Your task to perform on an android device: Go to eBay Image 0: 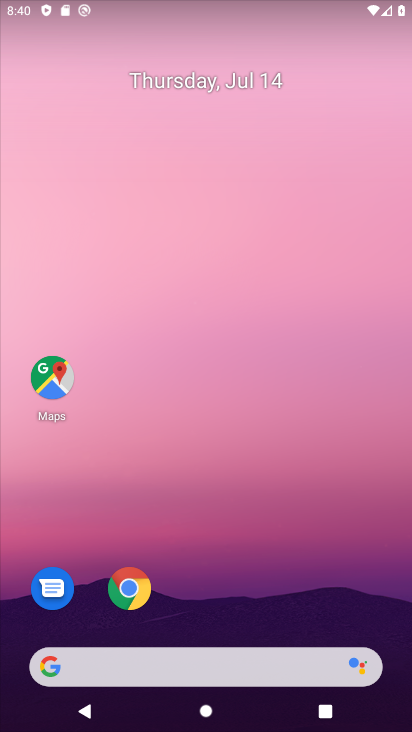
Step 0: drag from (223, 613) to (279, 111)
Your task to perform on an android device: Go to eBay Image 1: 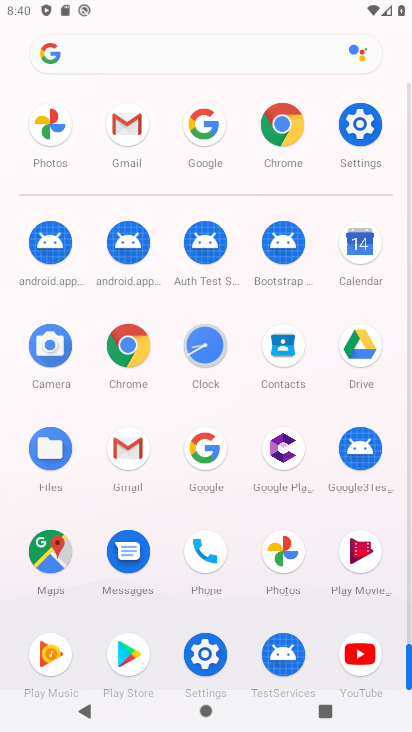
Step 1: click (205, 121)
Your task to perform on an android device: Go to eBay Image 2: 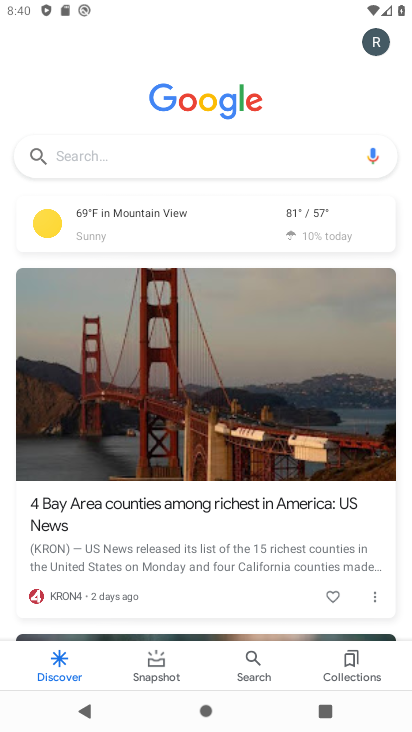
Step 2: click (184, 149)
Your task to perform on an android device: Go to eBay Image 3: 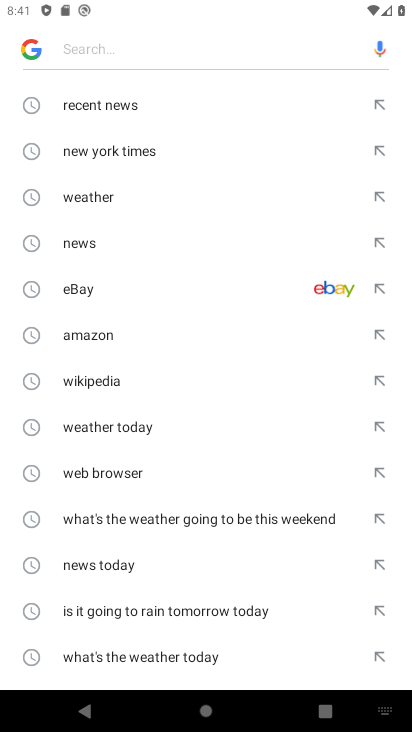
Step 3: click (142, 288)
Your task to perform on an android device: Go to eBay Image 4: 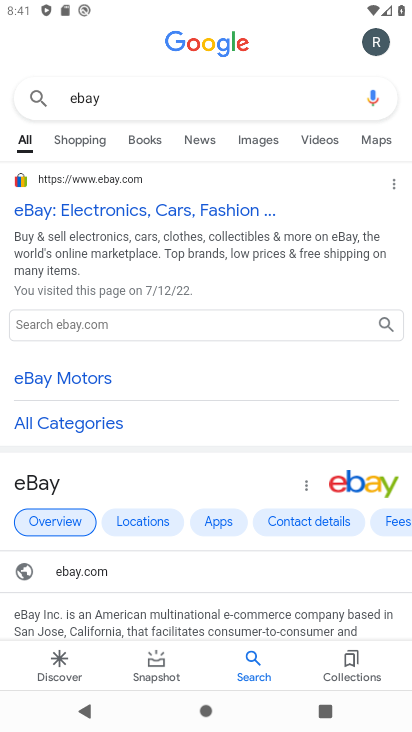
Step 4: click (93, 217)
Your task to perform on an android device: Go to eBay Image 5: 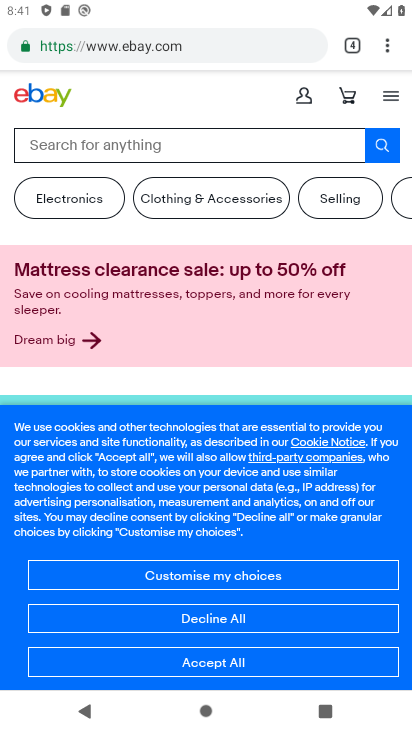
Step 5: task complete